Your task to perform on an android device: Search for the best way to make a resume. Image 0: 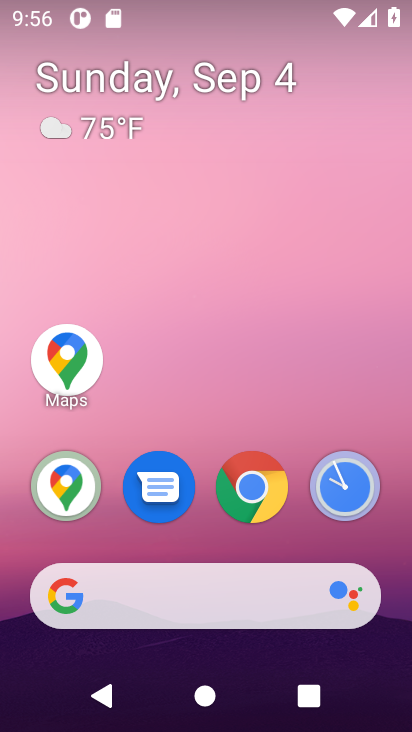
Step 0: click (368, 491)
Your task to perform on an android device: Search for the best way to make a resume. Image 1: 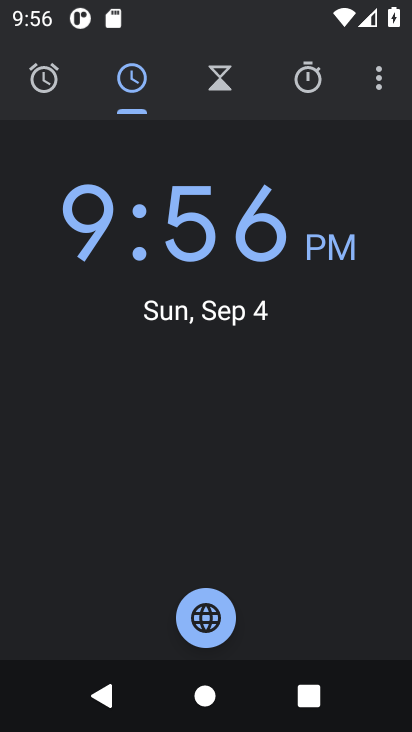
Step 1: click (241, 95)
Your task to perform on an android device: Search for the best way to make a resume. Image 2: 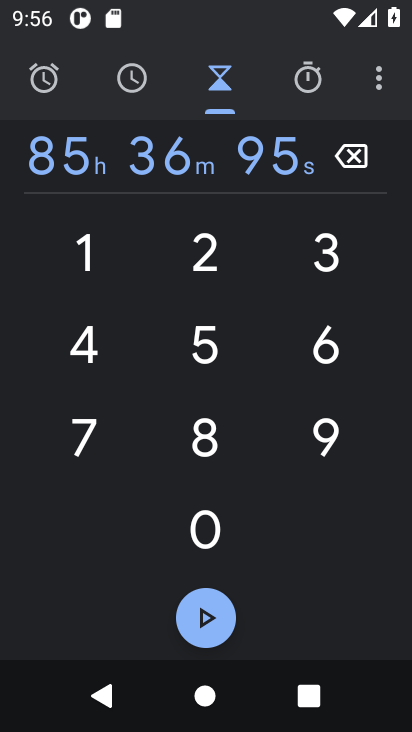
Step 2: task complete